Your task to perform on an android device: Open Chrome and go to settings Image 0: 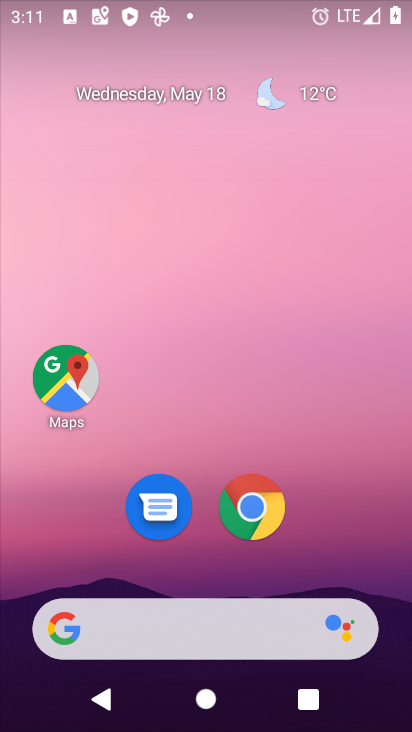
Step 0: click (253, 510)
Your task to perform on an android device: Open Chrome and go to settings Image 1: 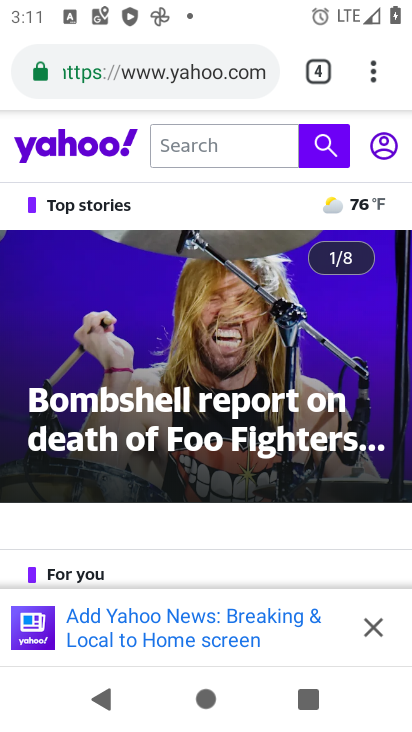
Step 1: click (371, 74)
Your task to perform on an android device: Open Chrome and go to settings Image 2: 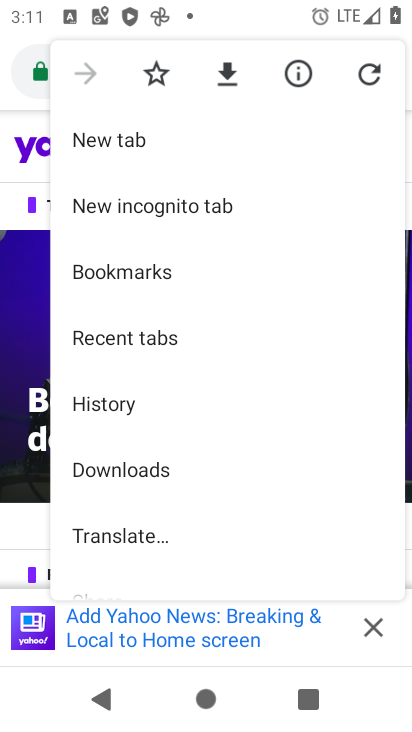
Step 2: drag from (191, 519) to (208, 126)
Your task to perform on an android device: Open Chrome and go to settings Image 3: 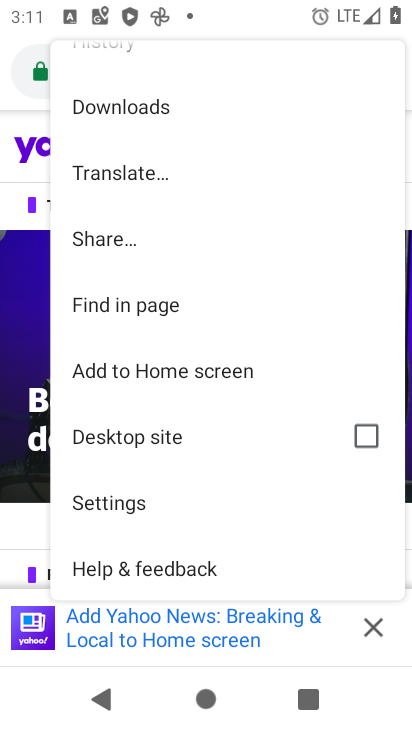
Step 3: click (119, 498)
Your task to perform on an android device: Open Chrome and go to settings Image 4: 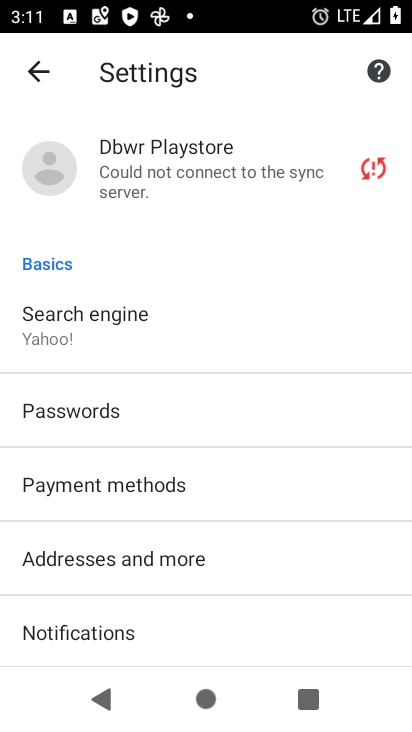
Step 4: task complete